Your task to perform on an android device: change timer sound Image 0: 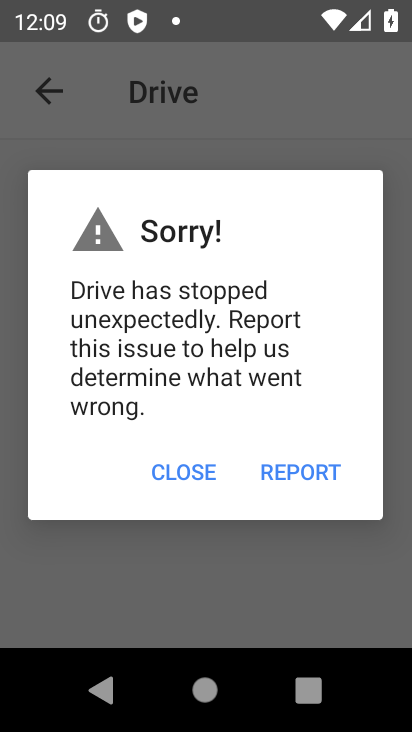
Step 0: press home button
Your task to perform on an android device: change timer sound Image 1: 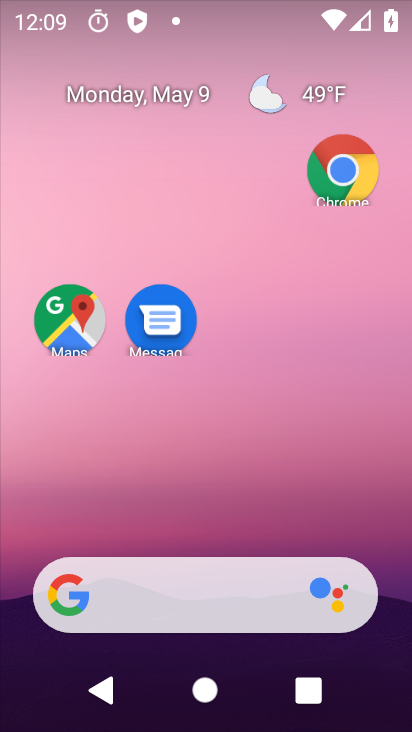
Step 1: drag from (254, 509) to (267, 94)
Your task to perform on an android device: change timer sound Image 2: 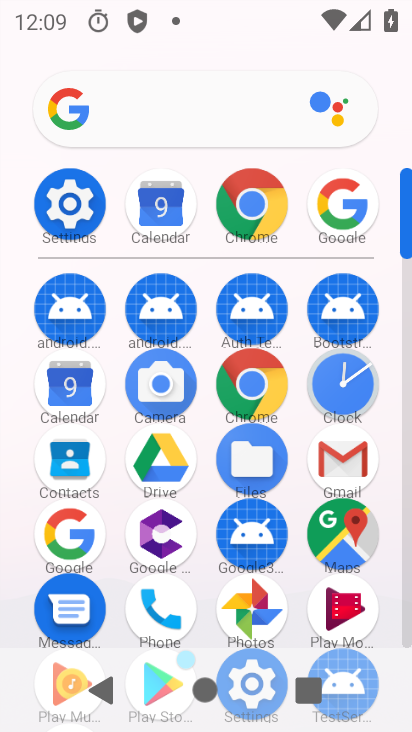
Step 2: click (318, 373)
Your task to perform on an android device: change timer sound Image 3: 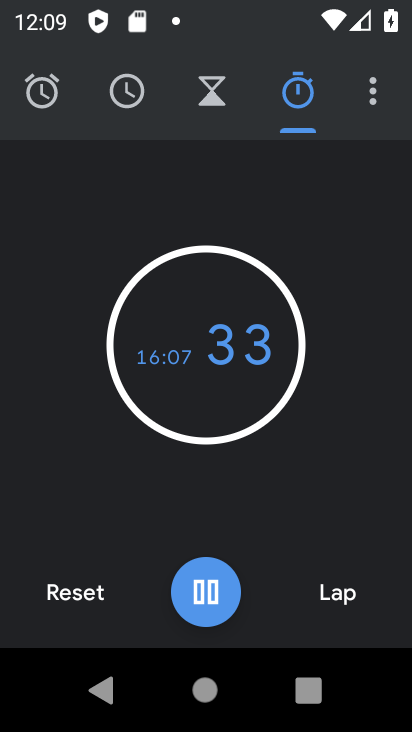
Step 3: click (361, 88)
Your task to perform on an android device: change timer sound Image 4: 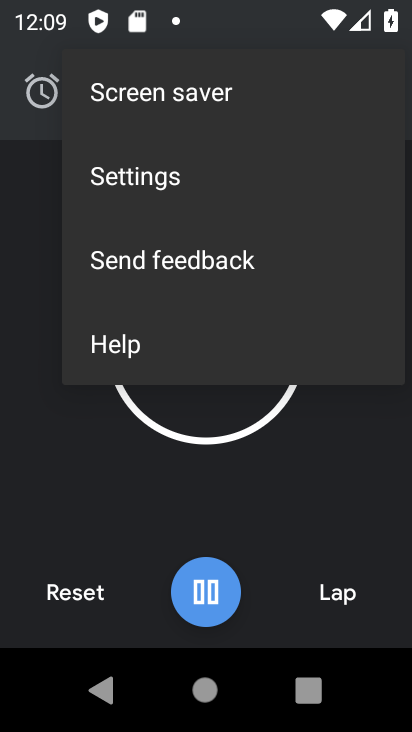
Step 4: click (152, 181)
Your task to perform on an android device: change timer sound Image 5: 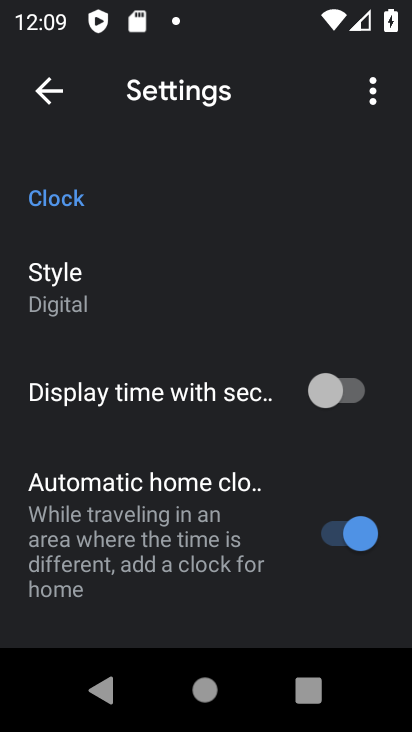
Step 5: drag from (66, 565) to (85, 176)
Your task to perform on an android device: change timer sound Image 6: 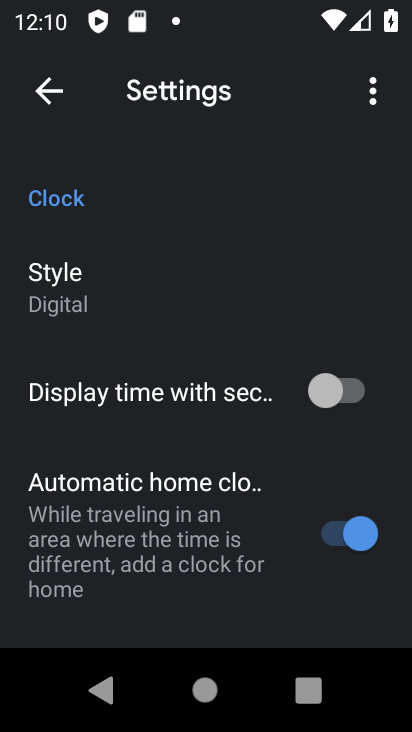
Step 6: drag from (43, 436) to (81, 161)
Your task to perform on an android device: change timer sound Image 7: 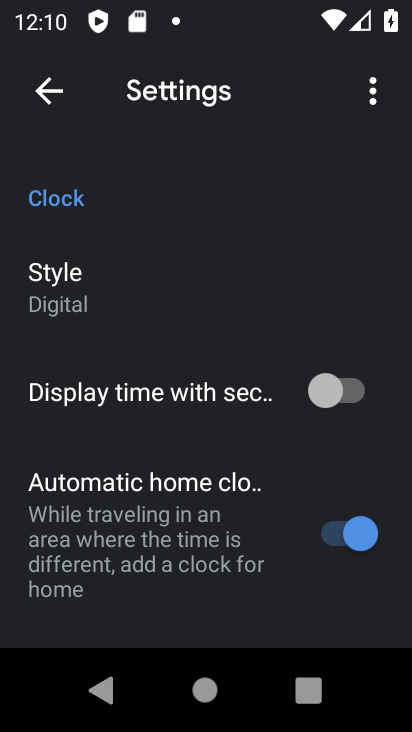
Step 7: click (56, 85)
Your task to perform on an android device: change timer sound Image 8: 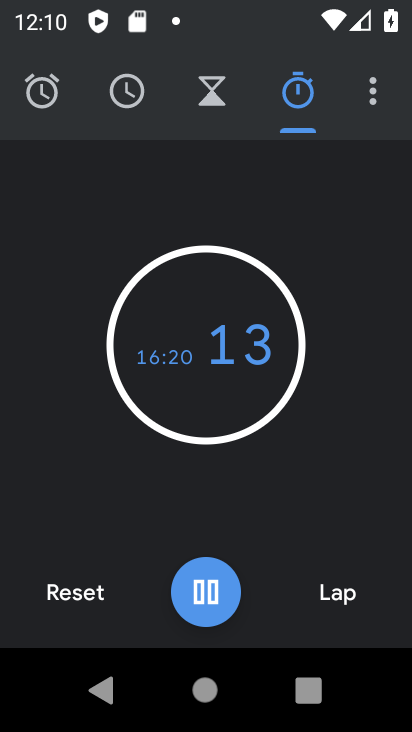
Step 8: click (120, 87)
Your task to perform on an android device: change timer sound Image 9: 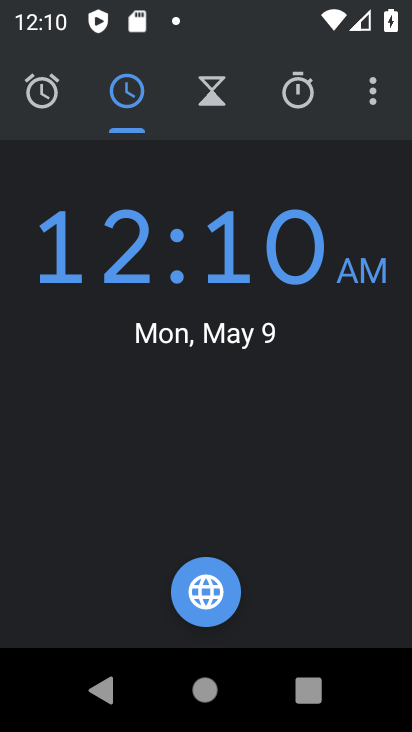
Step 9: task complete